Your task to perform on an android device: Show me popular games on the Play Store Image 0: 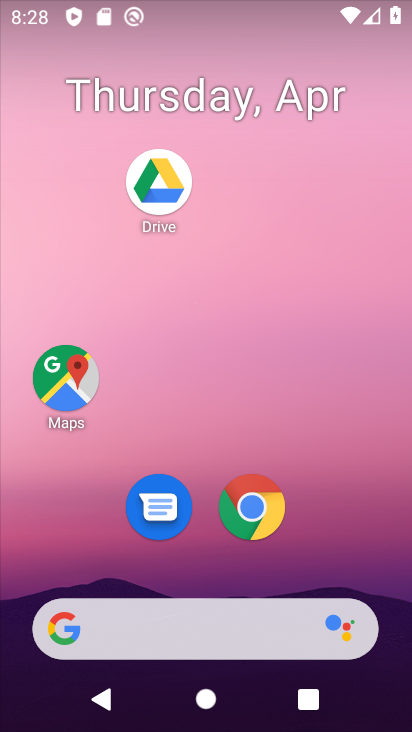
Step 0: drag from (388, 537) to (362, 109)
Your task to perform on an android device: Show me popular games on the Play Store Image 1: 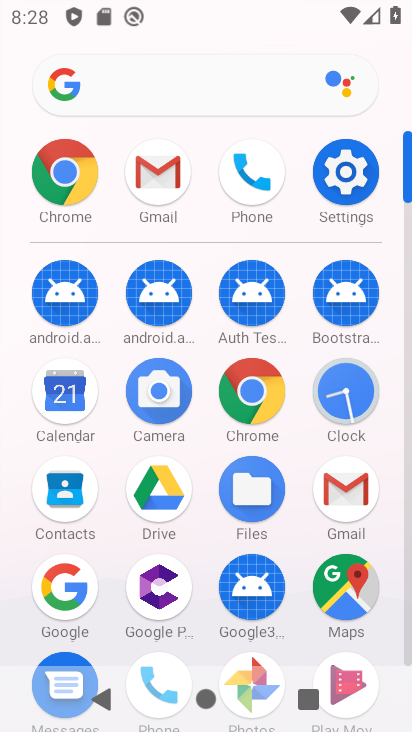
Step 1: drag from (394, 528) to (394, 206)
Your task to perform on an android device: Show me popular games on the Play Store Image 2: 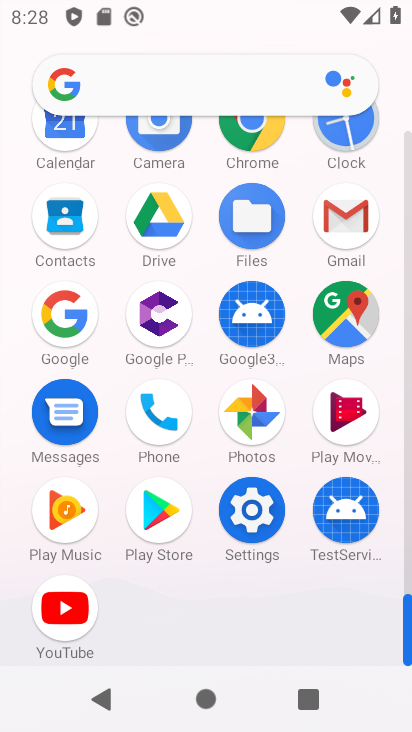
Step 2: click (153, 524)
Your task to perform on an android device: Show me popular games on the Play Store Image 3: 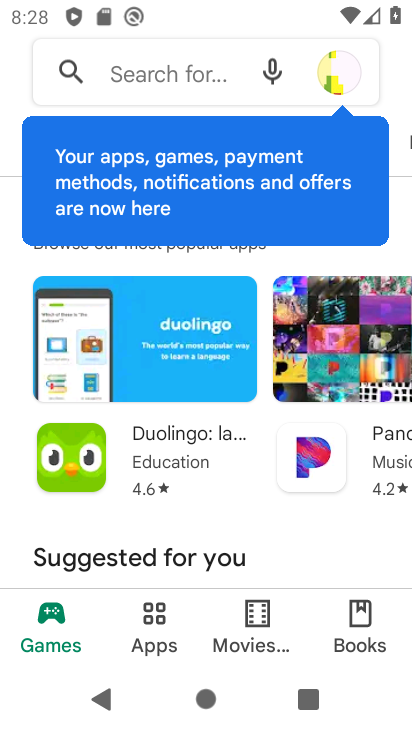
Step 3: task complete